Your task to perform on an android device: remove spam from my inbox in the gmail app Image 0: 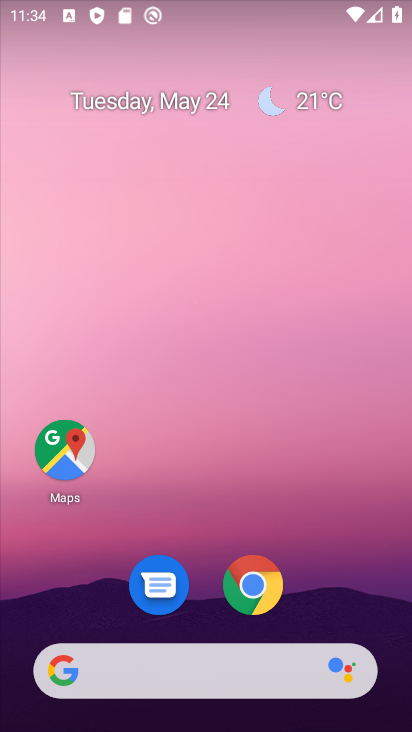
Step 0: drag from (261, 487) to (292, 19)
Your task to perform on an android device: remove spam from my inbox in the gmail app Image 1: 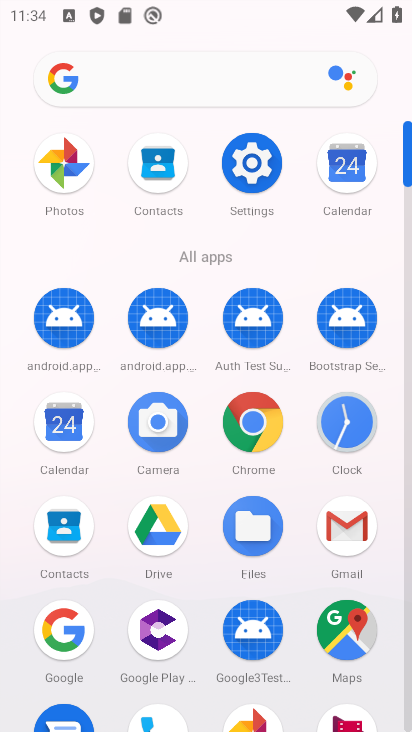
Step 1: click (346, 517)
Your task to perform on an android device: remove spam from my inbox in the gmail app Image 2: 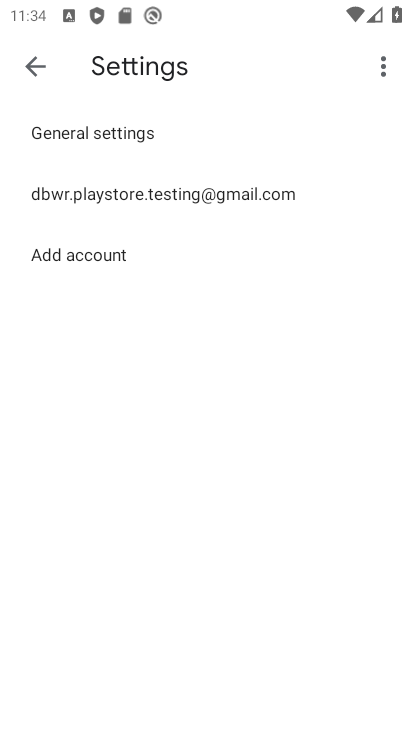
Step 2: click (40, 67)
Your task to perform on an android device: remove spam from my inbox in the gmail app Image 3: 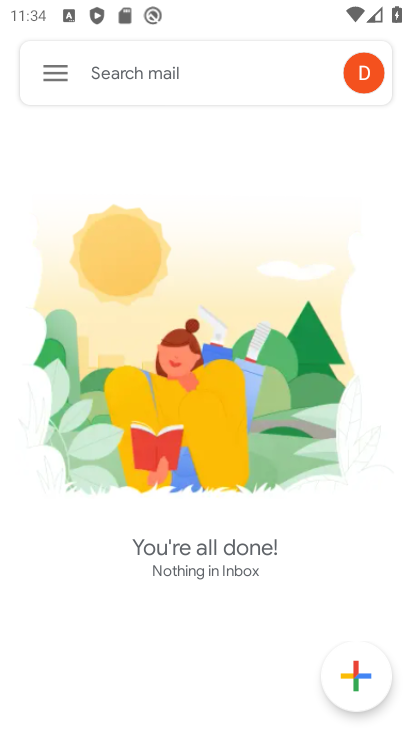
Step 3: click (54, 64)
Your task to perform on an android device: remove spam from my inbox in the gmail app Image 4: 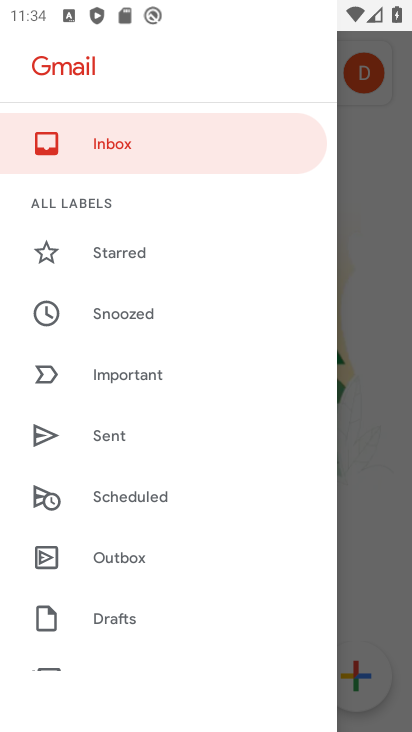
Step 4: drag from (180, 403) to (201, 126)
Your task to perform on an android device: remove spam from my inbox in the gmail app Image 5: 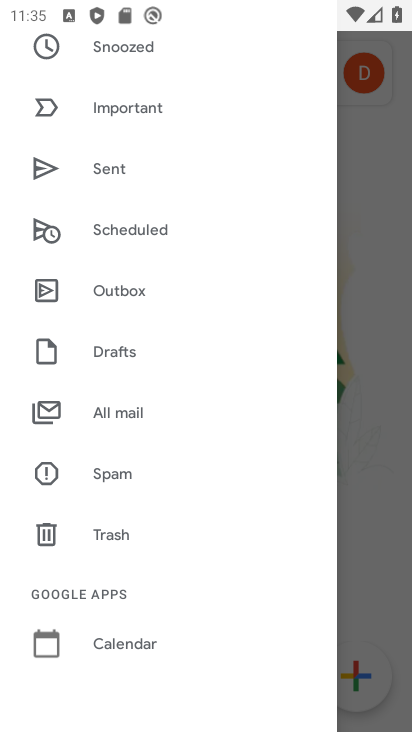
Step 5: click (152, 464)
Your task to perform on an android device: remove spam from my inbox in the gmail app Image 6: 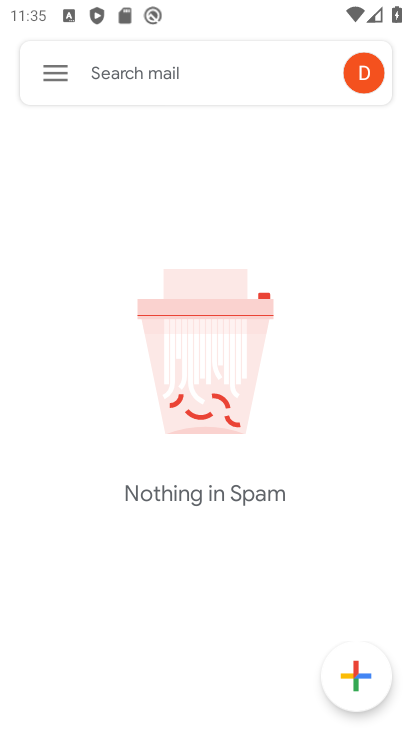
Step 6: task complete